Your task to perform on an android device: turn on translation in the chrome app Image 0: 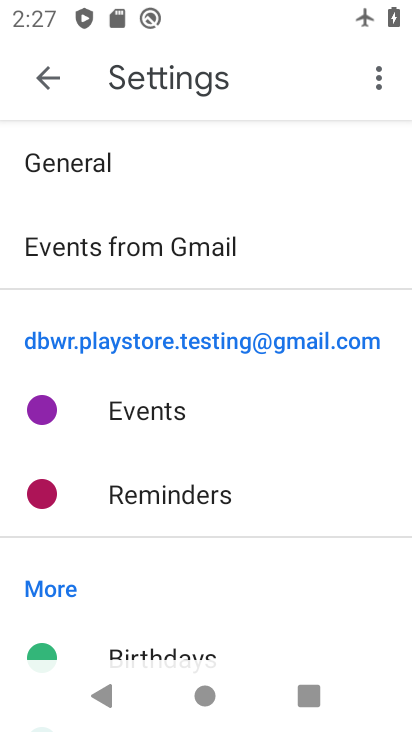
Step 0: press back button
Your task to perform on an android device: turn on translation in the chrome app Image 1: 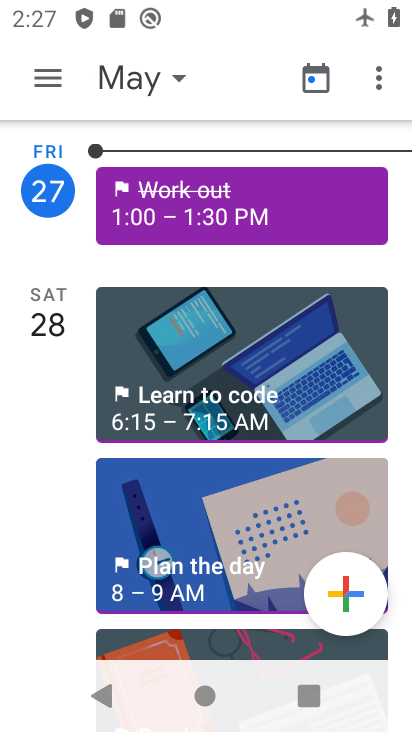
Step 1: press back button
Your task to perform on an android device: turn on translation in the chrome app Image 2: 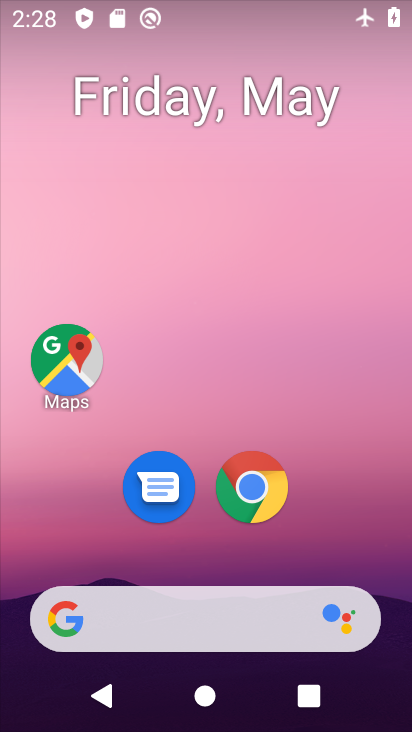
Step 2: click (261, 482)
Your task to perform on an android device: turn on translation in the chrome app Image 3: 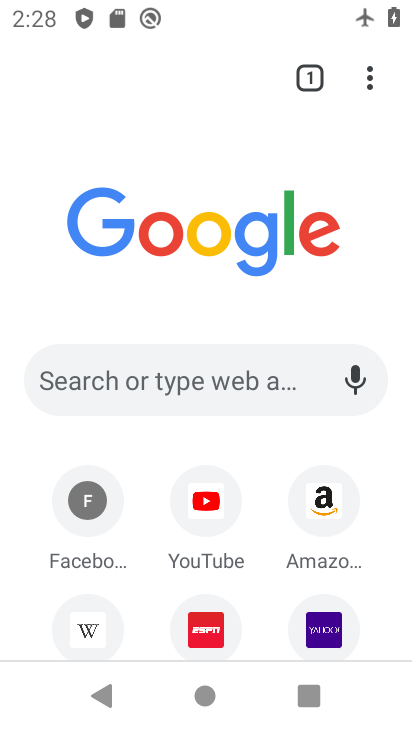
Step 3: drag from (360, 72) to (127, 551)
Your task to perform on an android device: turn on translation in the chrome app Image 4: 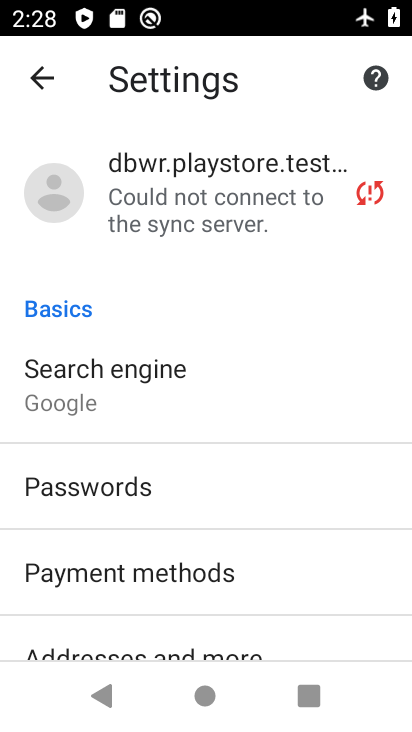
Step 4: drag from (141, 567) to (248, 133)
Your task to perform on an android device: turn on translation in the chrome app Image 5: 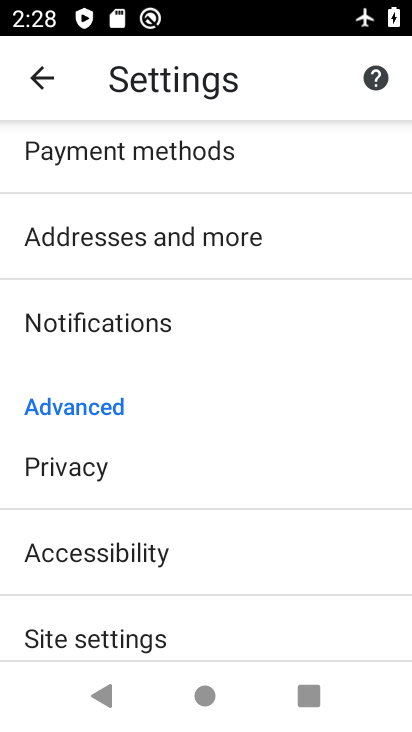
Step 5: drag from (136, 599) to (192, 354)
Your task to perform on an android device: turn on translation in the chrome app Image 6: 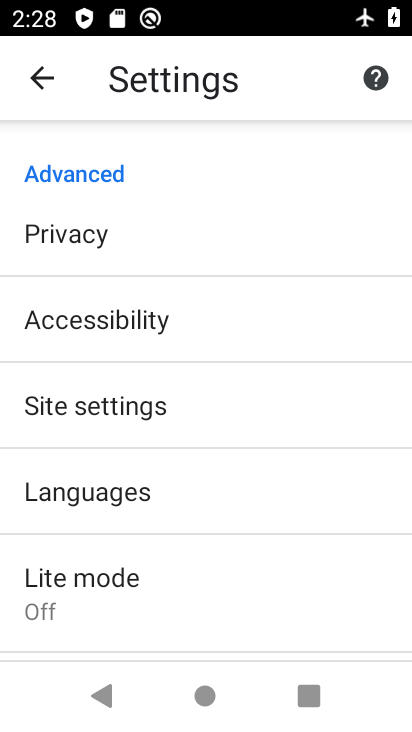
Step 6: click (110, 487)
Your task to perform on an android device: turn on translation in the chrome app Image 7: 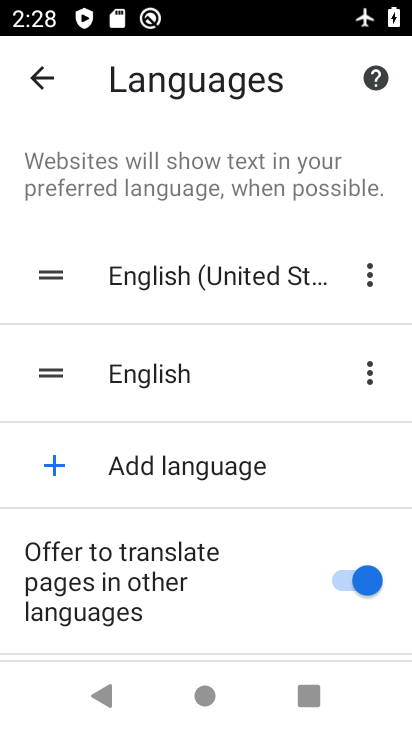
Step 7: task complete